Your task to perform on an android device: Open wifi settings Image 0: 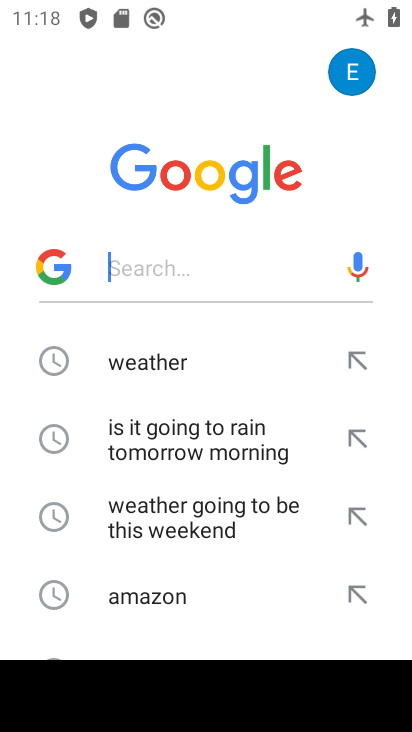
Step 0: press home button
Your task to perform on an android device: Open wifi settings Image 1: 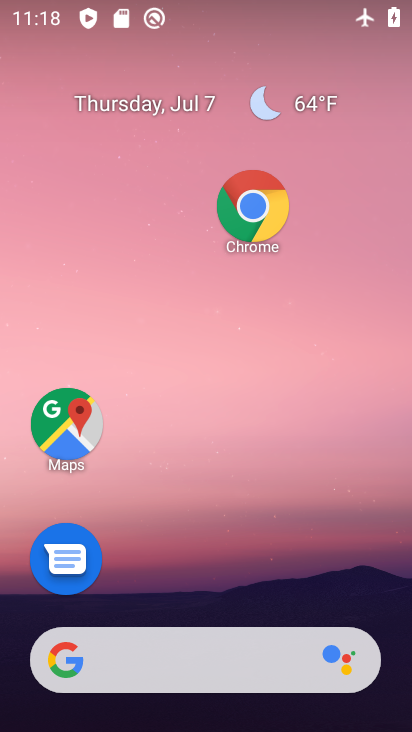
Step 1: drag from (132, 624) to (157, 163)
Your task to perform on an android device: Open wifi settings Image 2: 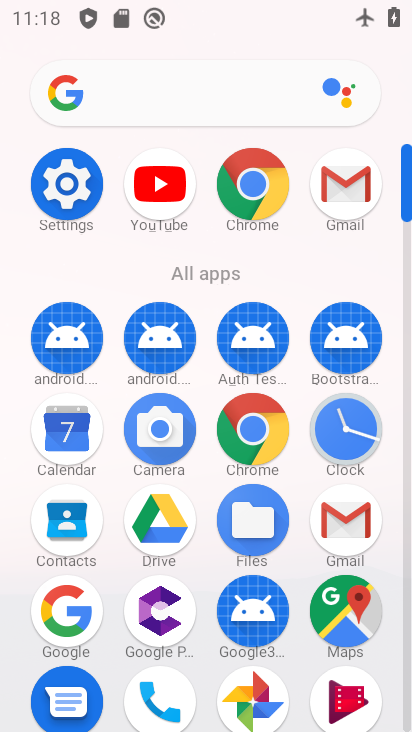
Step 2: click (57, 176)
Your task to perform on an android device: Open wifi settings Image 3: 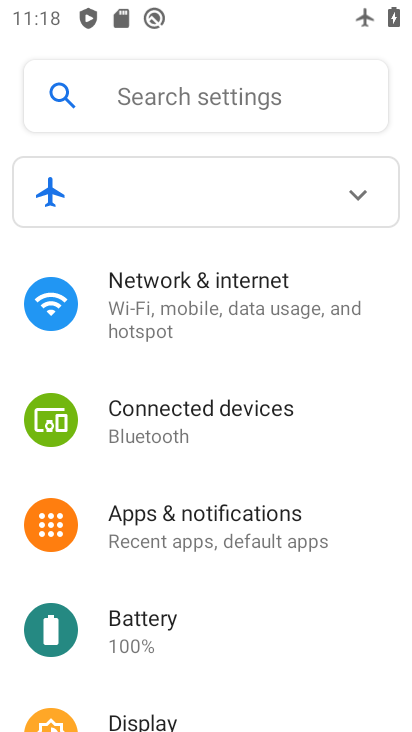
Step 3: click (180, 304)
Your task to perform on an android device: Open wifi settings Image 4: 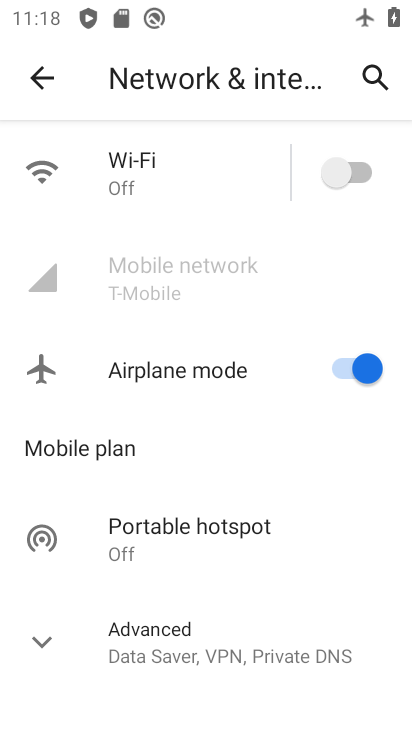
Step 4: click (144, 162)
Your task to perform on an android device: Open wifi settings Image 5: 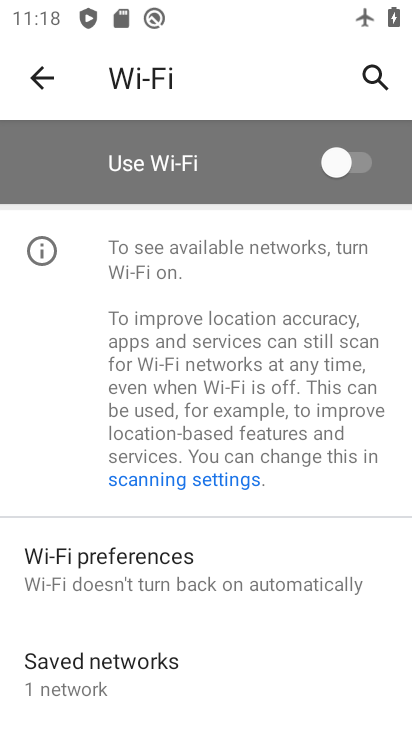
Step 5: click (348, 162)
Your task to perform on an android device: Open wifi settings Image 6: 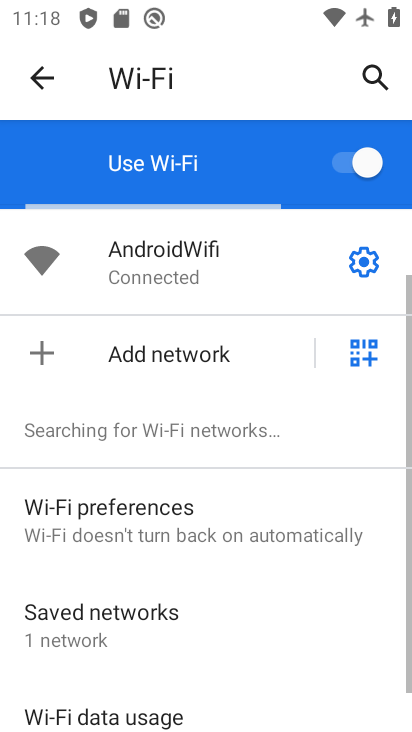
Step 6: click (363, 272)
Your task to perform on an android device: Open wifi settings Image 7: 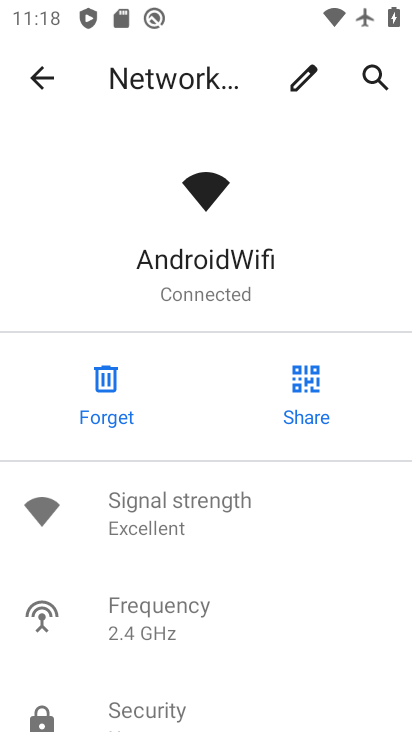
Step 7: drag from (193, 628) to (207, 240)
Your task to perform on an android device: Open wifi settings Image 8: 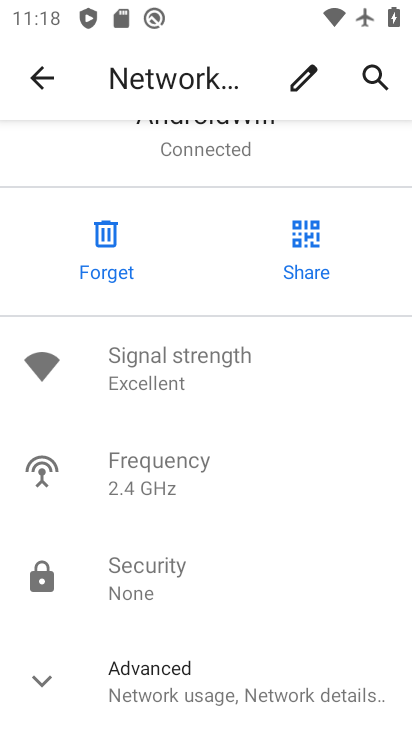
Step 8: click (186, 680)
Your task to perform on an android device: Open wifi settings Image 9: 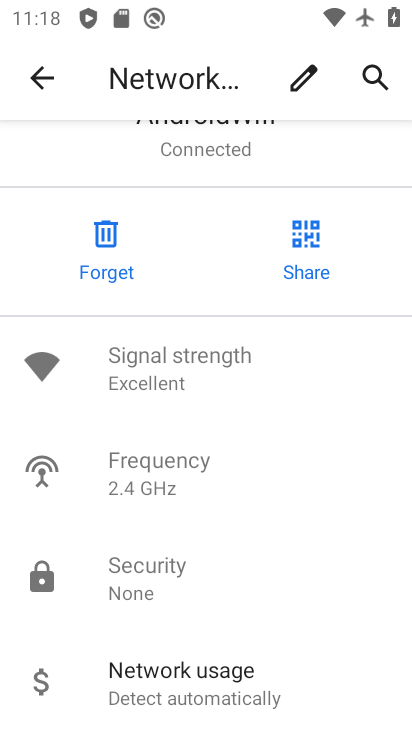
Step 9: task complete